Your task to perform on an android device: change the clock display to analog Image 0: 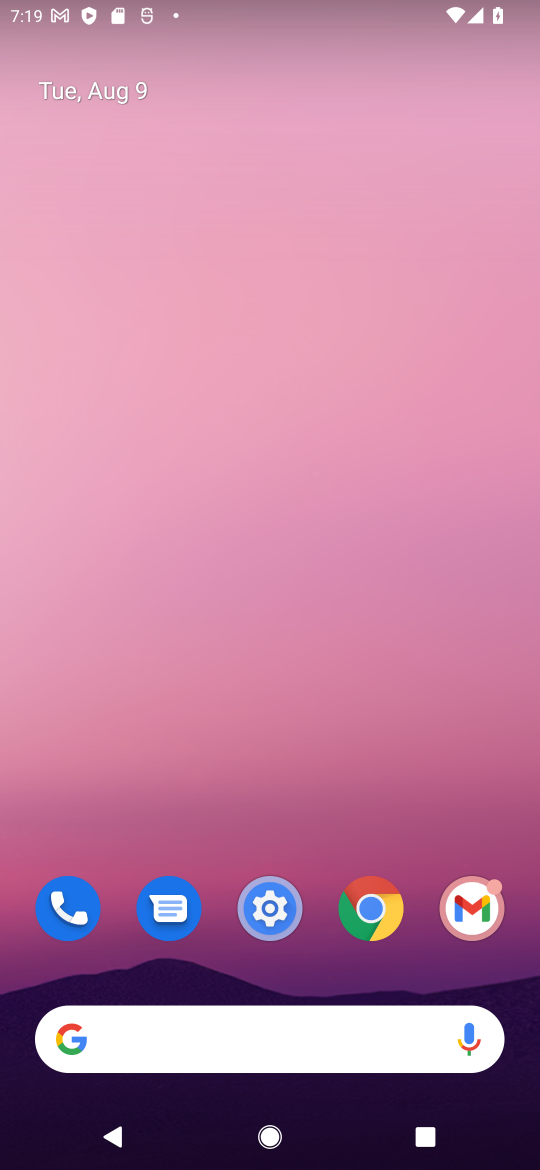
Step 0: drag from (306, 946) to (295, 128)
Your task to perform on an android device: change the clock display to analog Image 1: 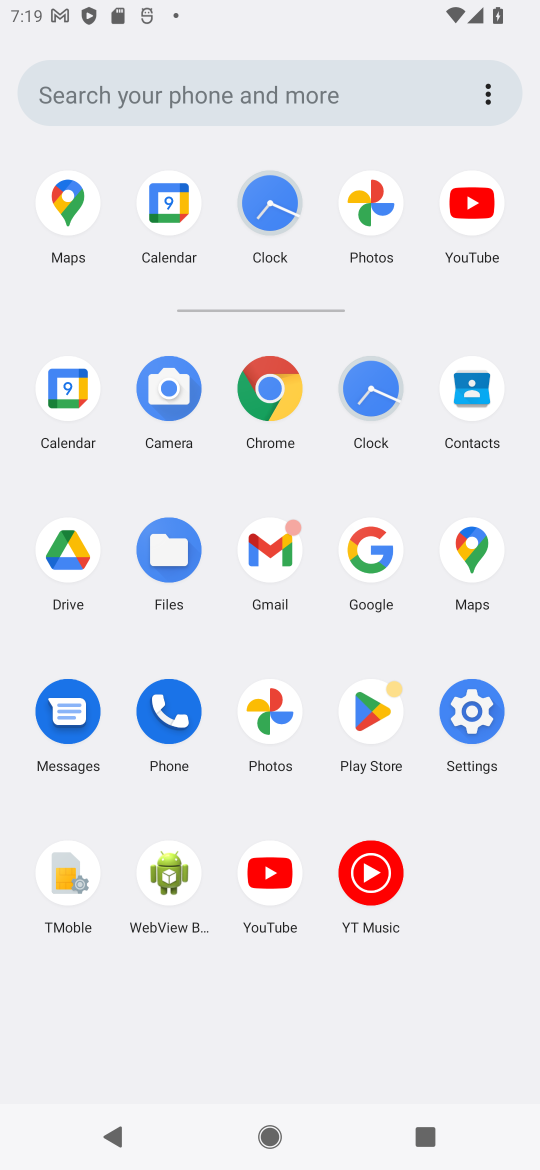
Step 1: click (372, 379)
Your task to perform on an android device: change the clock display to analog Image 2: 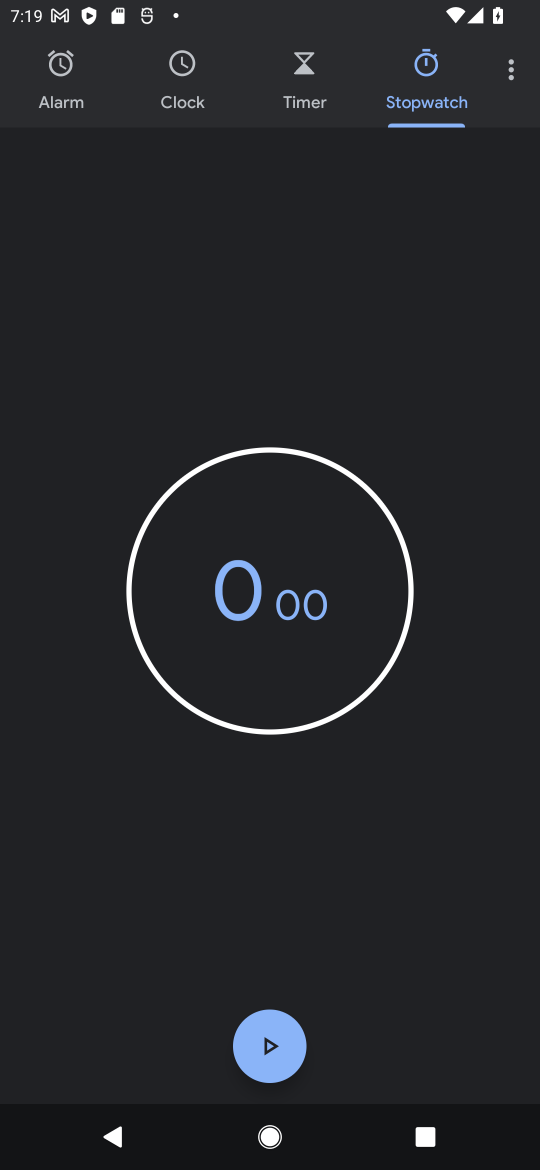
Step 2: click (515, 69)
Your task to perform on an android device: change the clock display to analog Image 3: 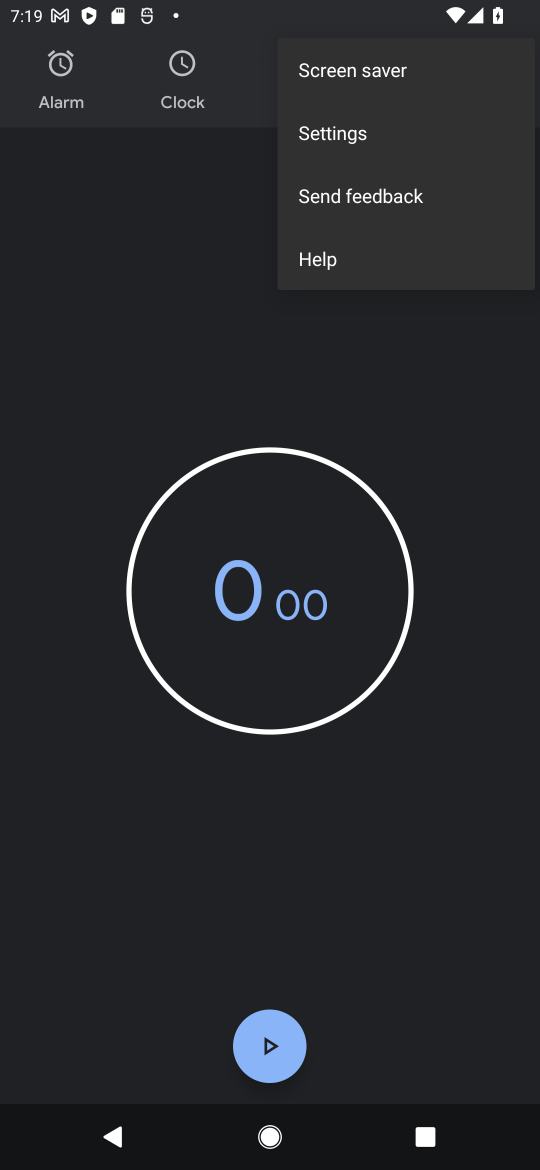
Step 3: click (311, 133)
Your task to perform on an android device: change the clock display to analog Image 4: 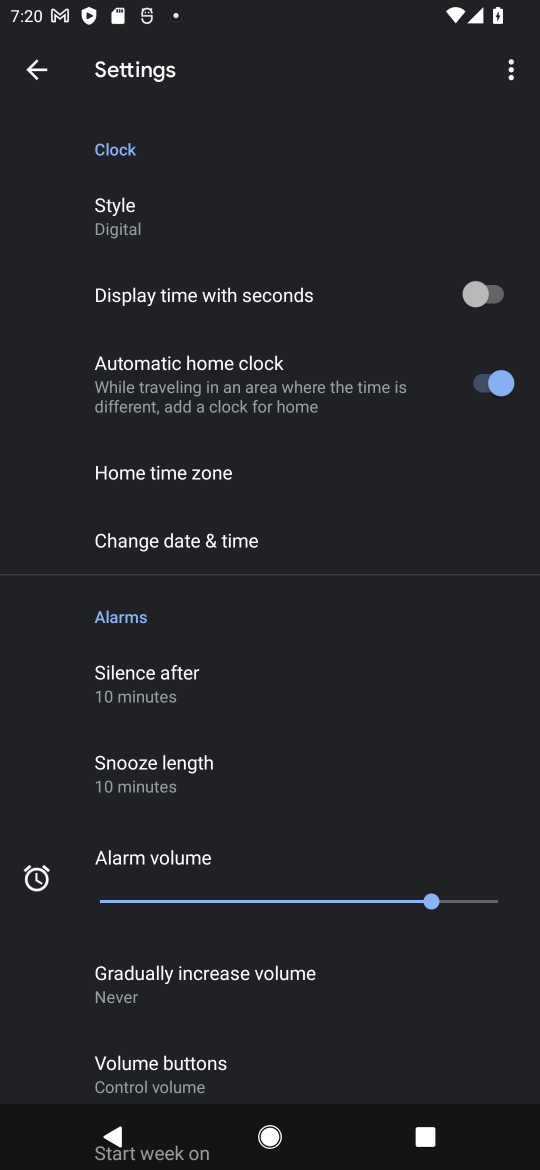
Step 4: click (126, 212)
Your task to perform on an android device: change the clock display to analog Image 5: 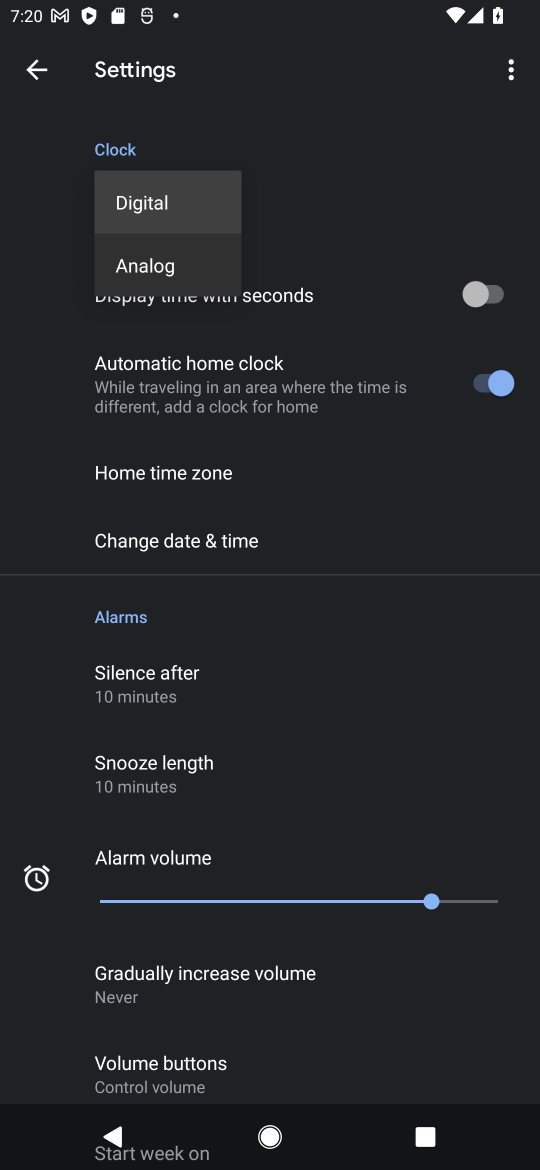
Step 5: click (143, 264)
Your task to perform on an android device: change the clock display to analog Image 6: 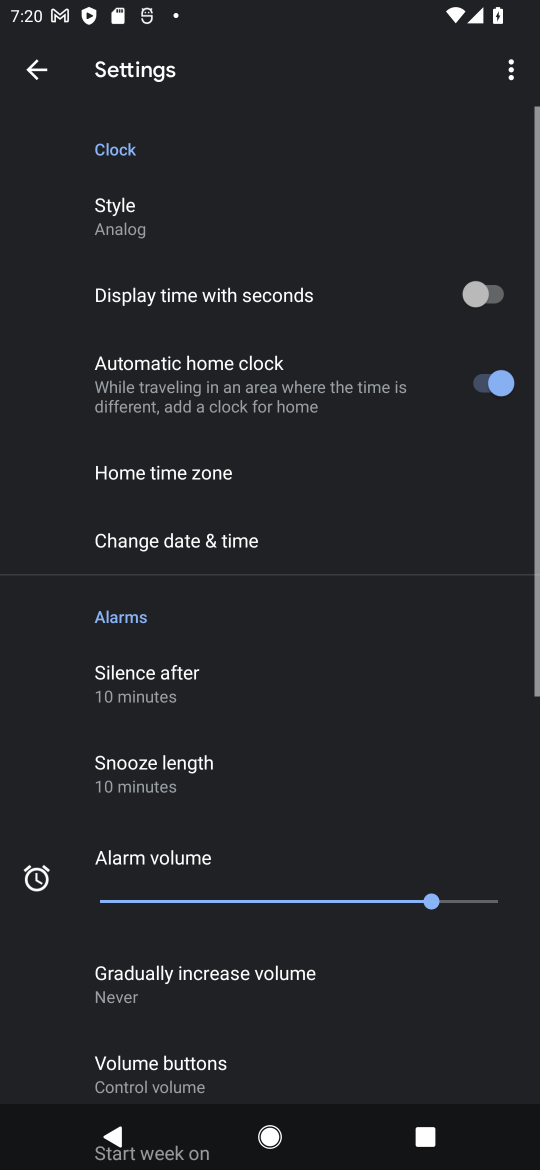
Step 6: task complete